Your task to perform on an android device: turn off smart reply in the gmail app Image 0: 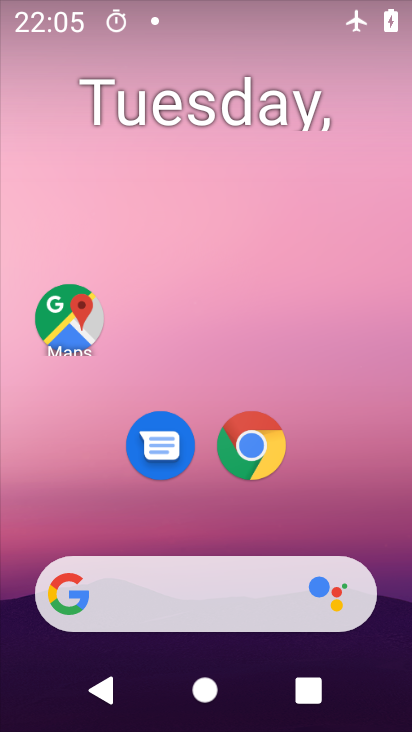
Step 0: drag from (403, 581) to (325, 52)
Your task to perform on an android device: turn off smart reply in the gmail app Image 1: 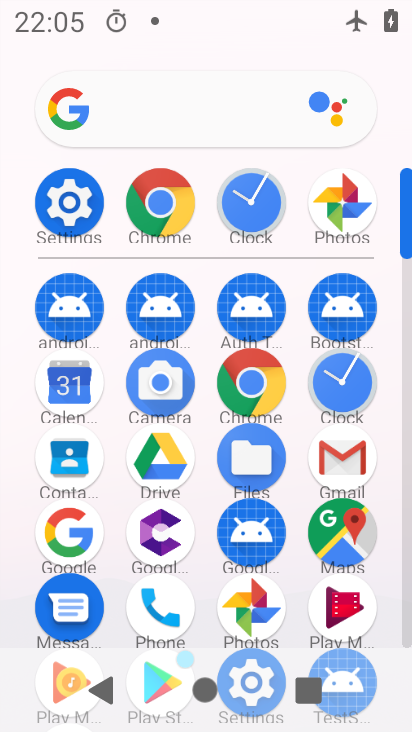
Step 1: click (350, 458)
Your task to perform on an android device: turn off smart reply in the gmail app Image 2: 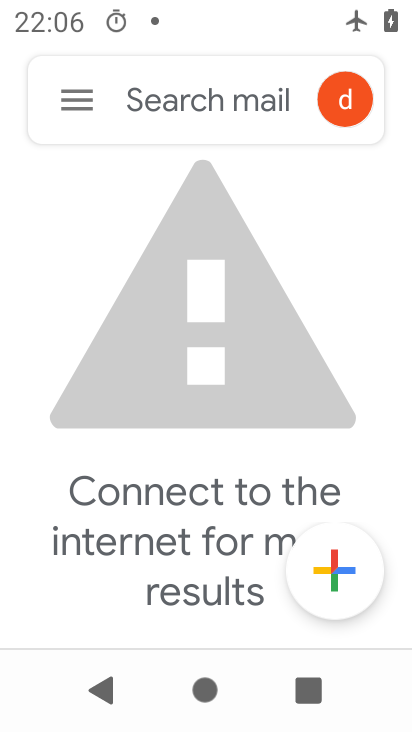
Step 2: click (75, 100)
Your task to perform on an android device: turn off smart reply in the gmail app Image 3: 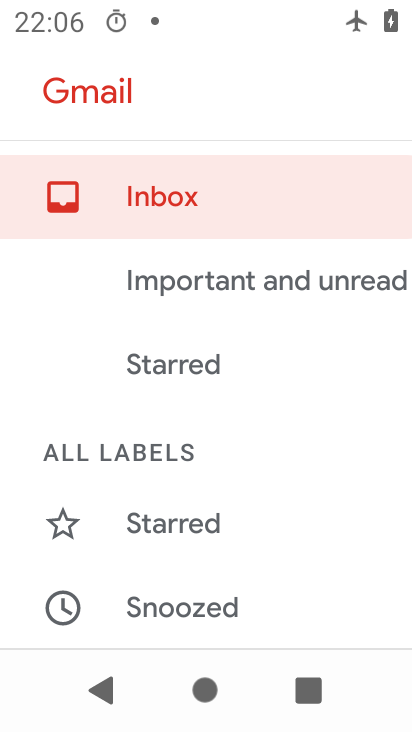
Step 3: drag from (206, 554) to (159, 174)
Your task to perform on an android device: turn off smart reply in the gmail app Image 4: 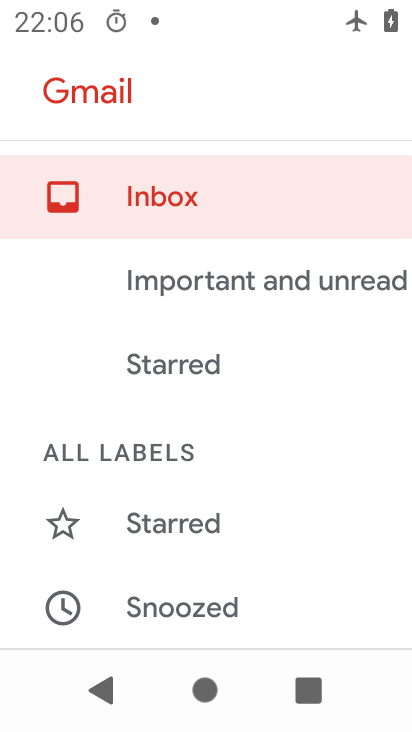
Step 4: drag from (161, 570) to (186, 188)
Your task to perform on an android device: turn off smart reply in the gmail app Image 5: 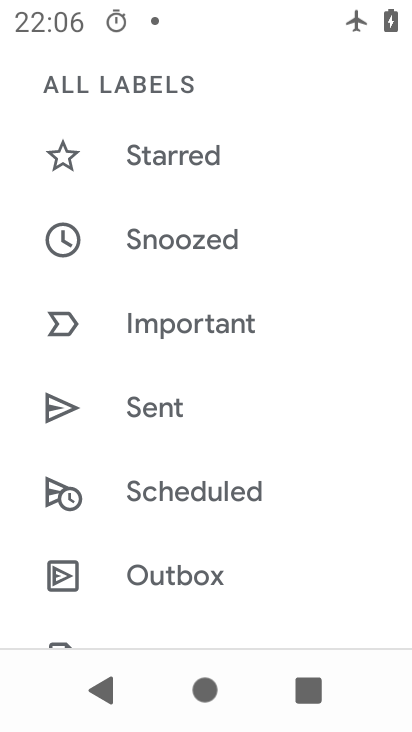
Step 5: drag from (190, 528) to (202, 156)
Your task to perform on an android device: turn off smart reply in the gmail app Image 6: 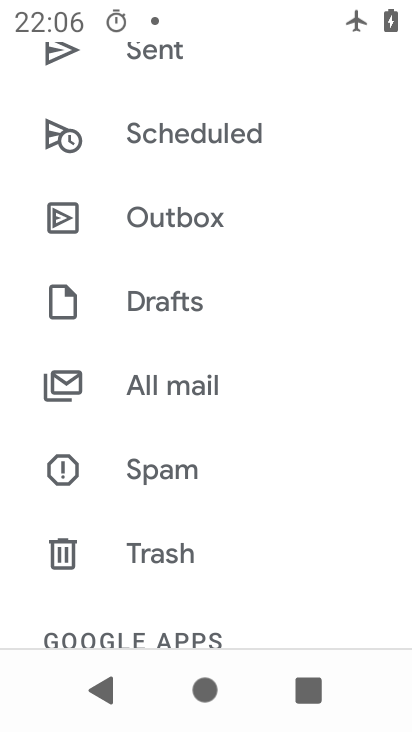
Step 6: drag from (213, 487) to (187, 160)
Your task to perform on an android device: turn off smart reply in the gmail app Image 7: 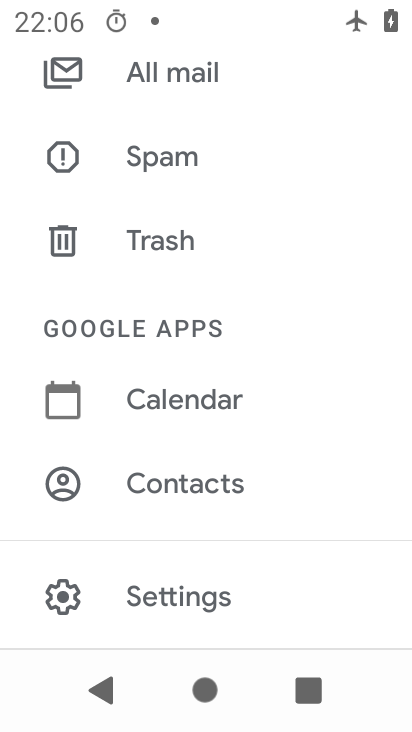
Step 7: drag from (173, 522) to (138, 290)
Your task to perform on an android device: turn off smart reply in the gmail app Image 8: 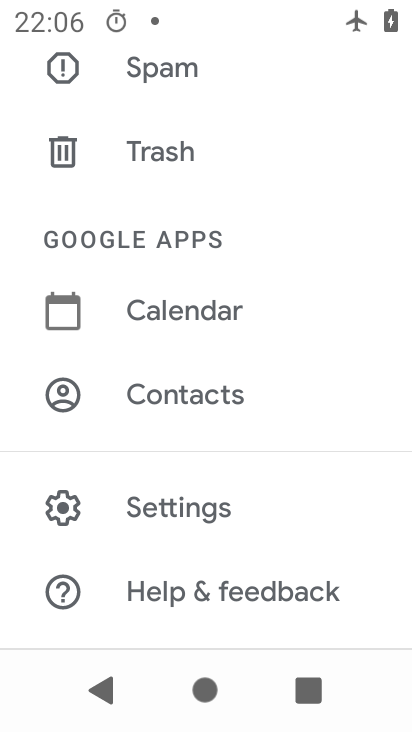
Step 8: click (172, 501)
Your task to perform on an android device: turn off smart reply in the gmail app Image 9: 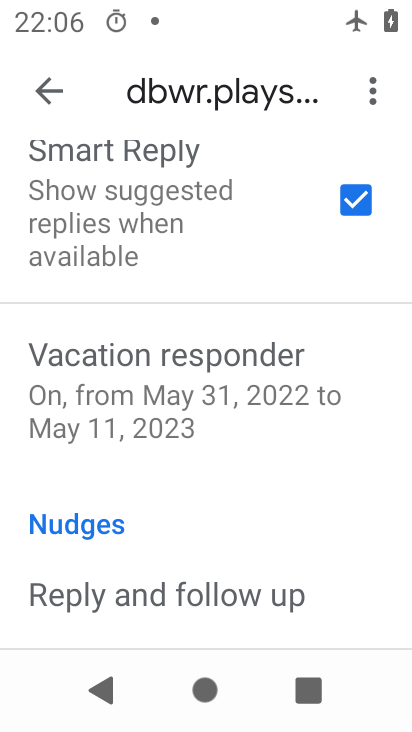
Step 9: click (343, 217)
Your task to perform on an android device: turn off smart reply in the gmail app Image 10: 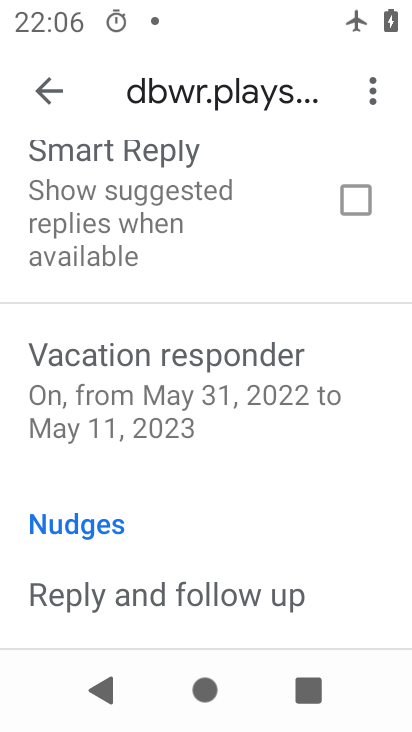
Step 10: task complete